Your task to perform on an android device: turn off smart reply in the gmail app Image 0: 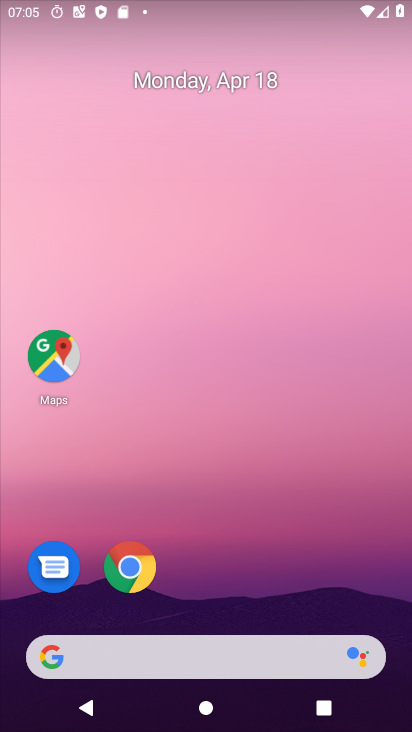
Step 0: drag from (288, 599) to (266, 499)
Your task to perform on an android device: turn off smart reply in the gmail app Image 1: 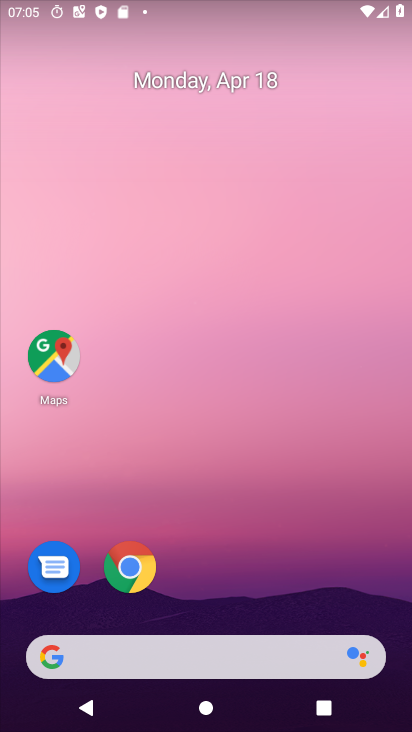
Step 1: drag from (328, 569) to (284, 24)
Your task to perform on an android device: turn off smart reply in the gmail app Image 2: 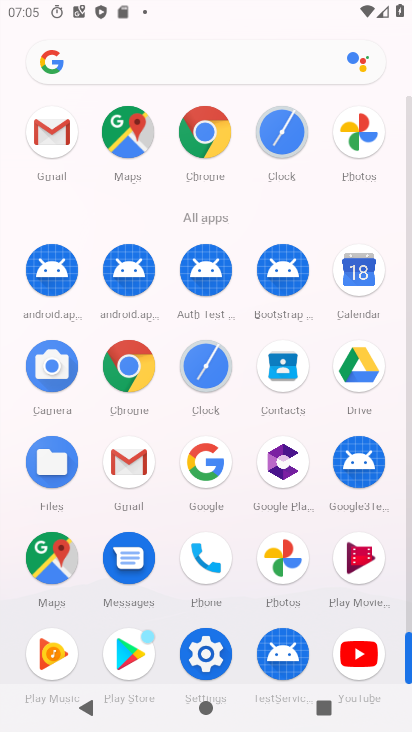
Step 2: click (61, 126)
Your task to perform on an android device: turn off smart reply in the gmail app Image 3: 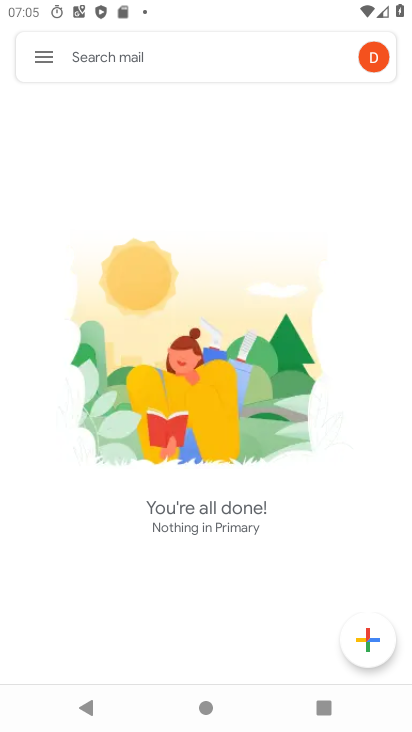
Step 3: click (39, 56)
Your task to perform on an android device: turn off smart reply in the gmail app Image 4: 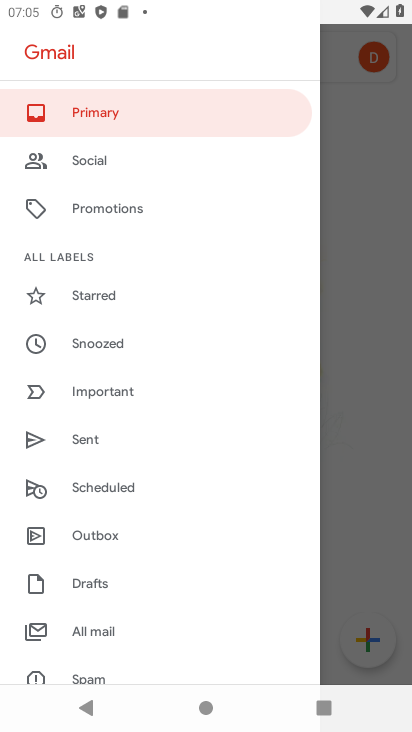
Step 4: drag from (155, 533) to (184, 68)
Your task to perform on an android device: turn off smart reply in the gmail app Image 5: 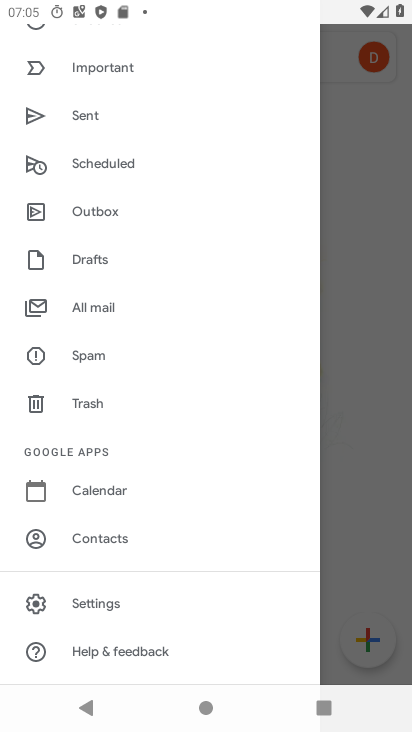
Step 5: click (88, 604)
Your task to perform on an android device: turn off smart reply in the gmail app Image 6: 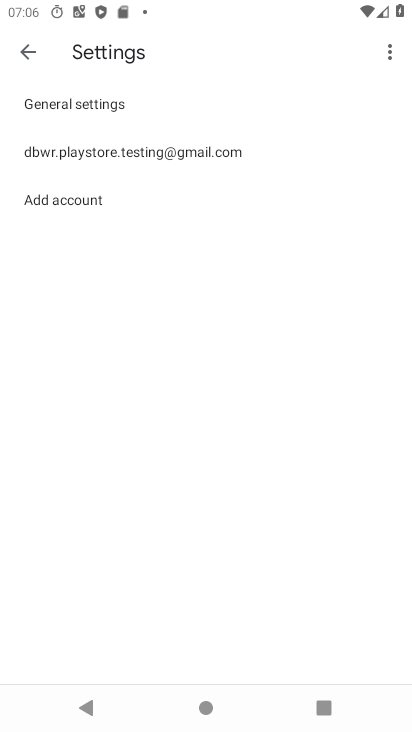
Step 6: click (190, 156)
Your task to perform on an android device: turn off smart reply in the gmail app Image 7: 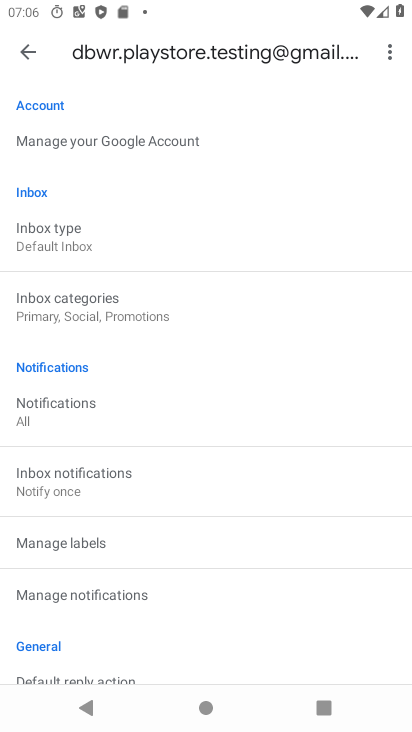
Step 7: drag from (262, 475) to (286, 133)
Your task to perform on an android device: turn off smart reply in the gmail app Image 8: 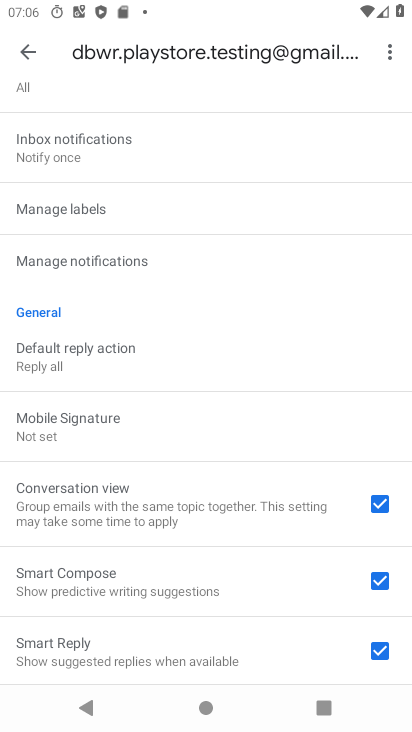
Step 8: click (140, 647)
Your task to perform on an android device: turn off smart reply in the gmail app Image 9: 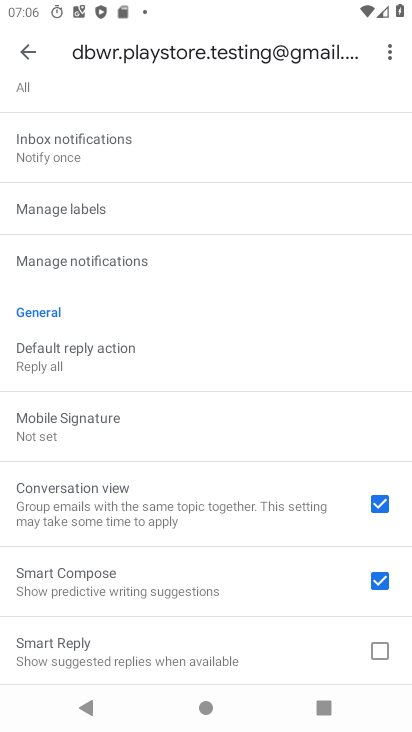
Step 9: task complete